Your task to perform on an android device: turn on improve location accuracy Image 0: 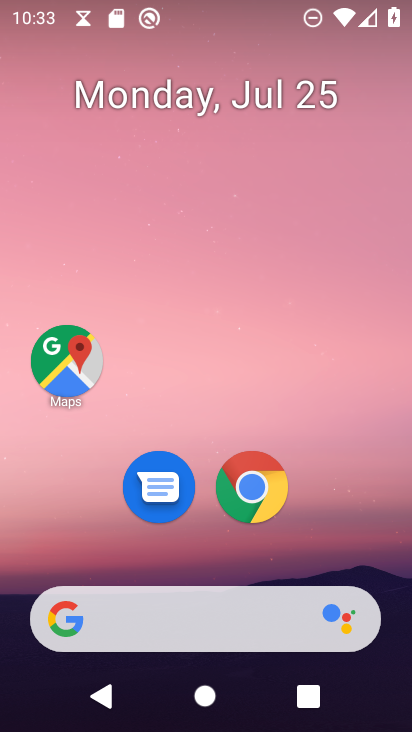
Step 0: drag from (80, 553) to (296, 9)
Your task to perform on an android device: turn on improve location accuracy Image 1: 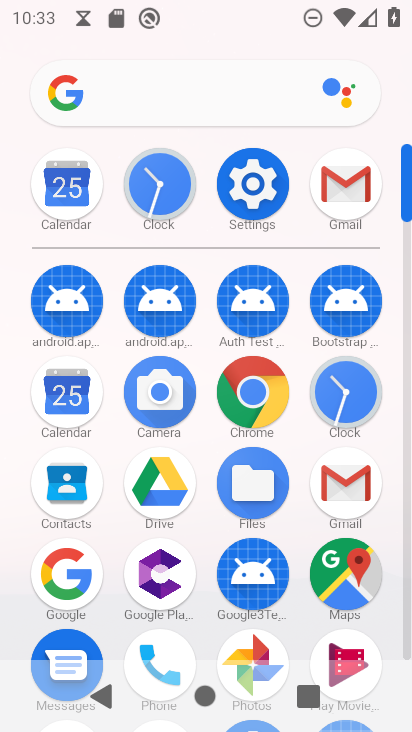
Step 1: click (262, 186)
Your task to perform on an android device: turn on improve location accuracy Image 2: 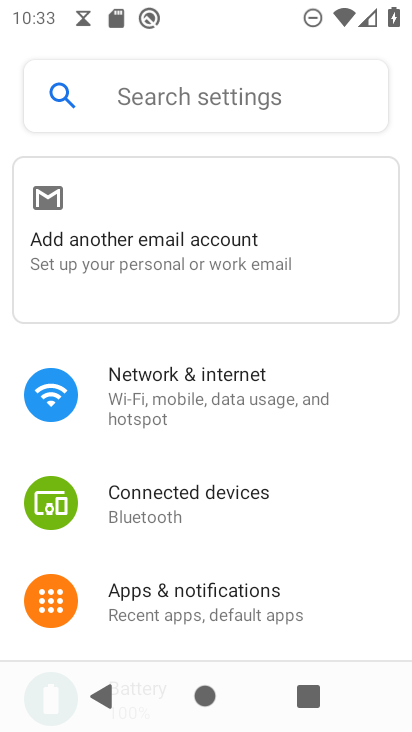
Step 2: drag from (203, 584) to (283, 126)
Your task to perform on an android device: turn on improve location accuracy Image 3: 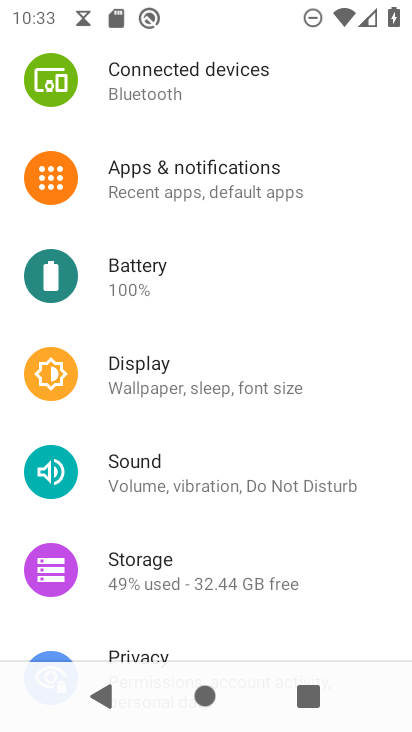
Step 3: drag from (159, 576) to (272, 111)
Your task to perform on an android device: turn on improve location accuracy Image 4: 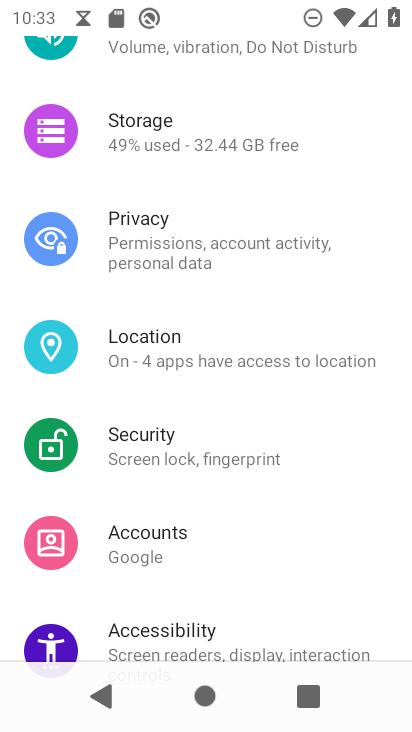
Step 4: click (158, 358)
Your task to perform on an android device: turn on improve location accuracy Image 5: 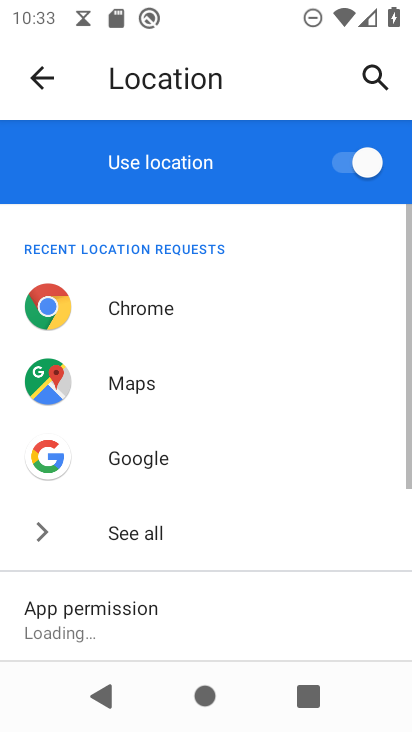
Step 5: drag from (153, 598) to (284, 75)
Your task to perform on an android device: turn on improve location accuracy Image 6: 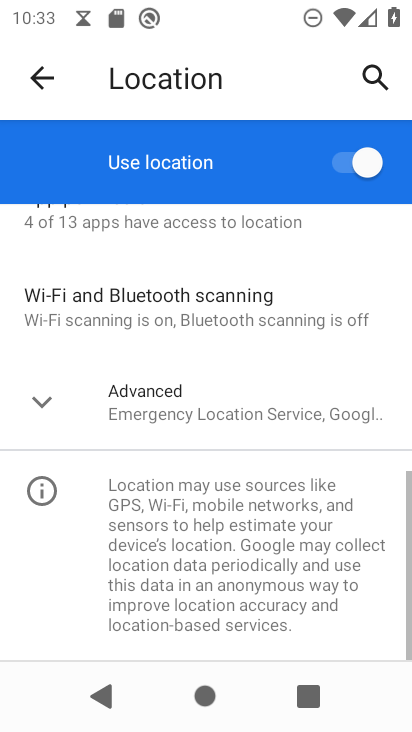
Step 6: click (153, 412)
Your task to perform on an android device: turn on improve location accuracy Image 7: 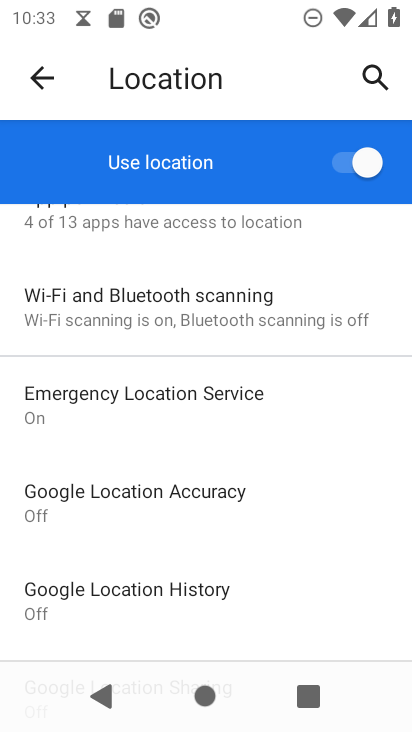
Step 7: click (136, 495)
Your task to perform on an android device: turn on improve location accuracy Image 8: 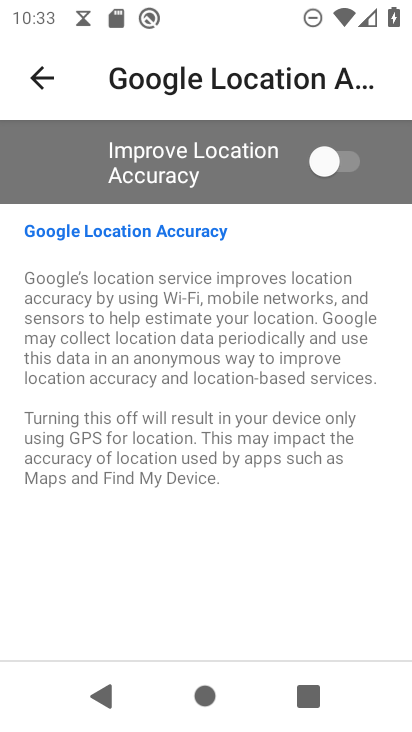
Step 8: click (337, 160)
Your task to perform on an android device: turn on improve location accuracy Image 9: 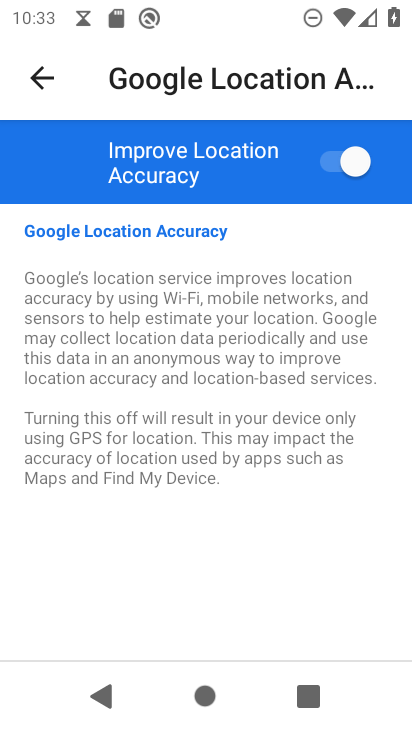
Step 9: task complete